Your task to perform on an android device: create a new album in the google photos Image 0: 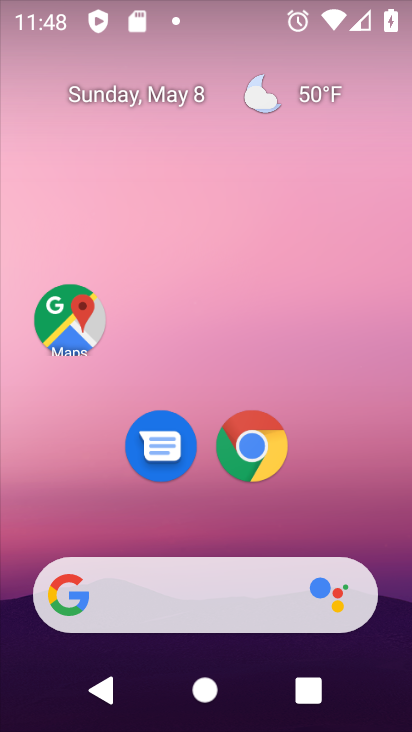
Step 0: drag from (300, 543) to (347, 62)
Your task to perform on an android device: create a new album in the google photos Image 1: 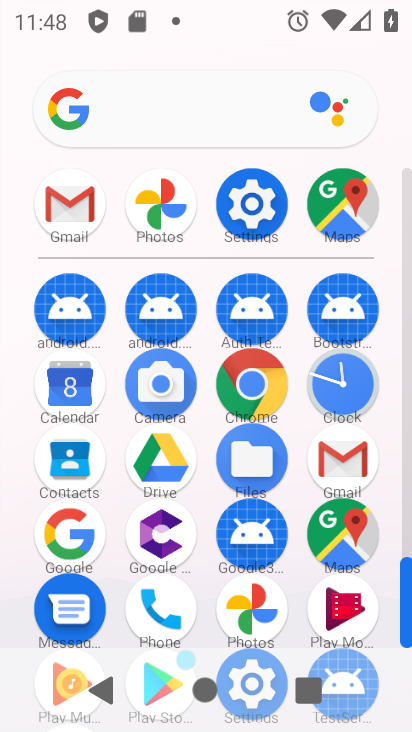
Step 1: click (266, 610)
Your task to perform on an android device: create a new album in the google photos Image 2: 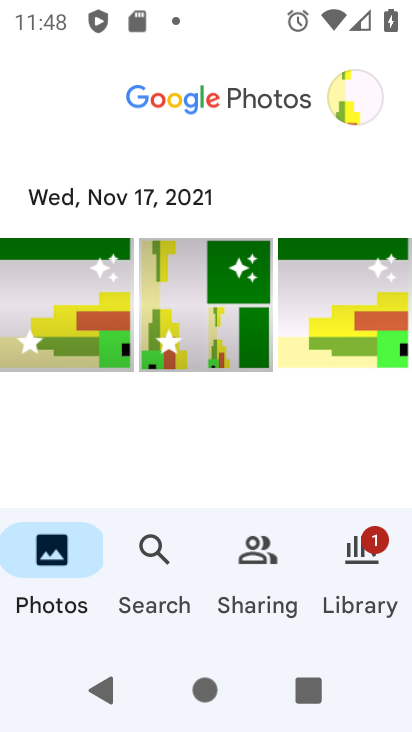
Step 2: click (347, 597)
Your task to perform on an android device: create a new album in the google photos Image 3: 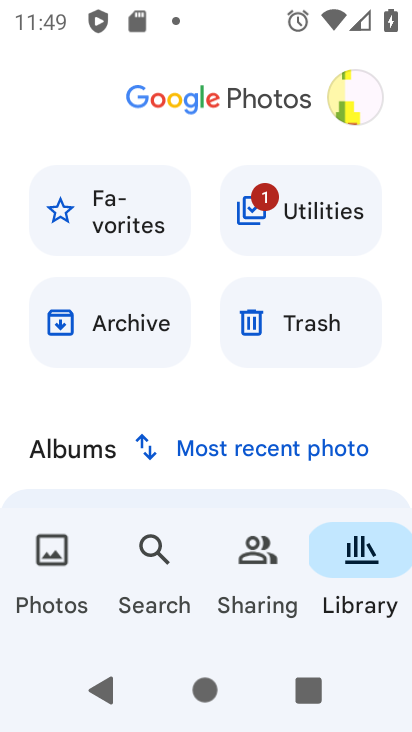
Step 3: drag from (127, 488) to (183, 45)
Your task to perform on an android device: create a new album in the google photos Image 4: 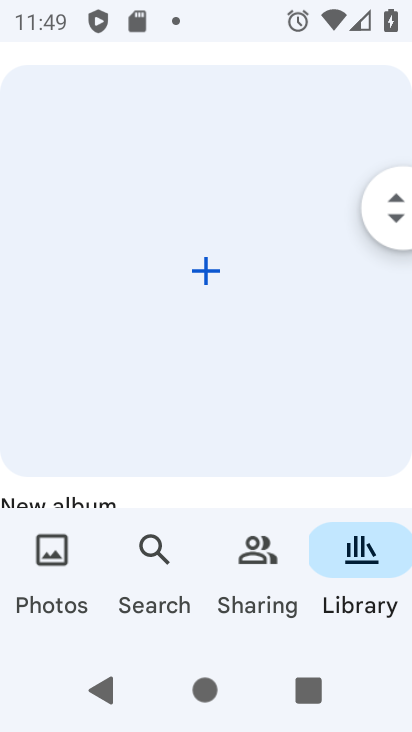
Step 4: click (212, 268)
Your task to perform on an android device: create a new album in the google photos Image 5: 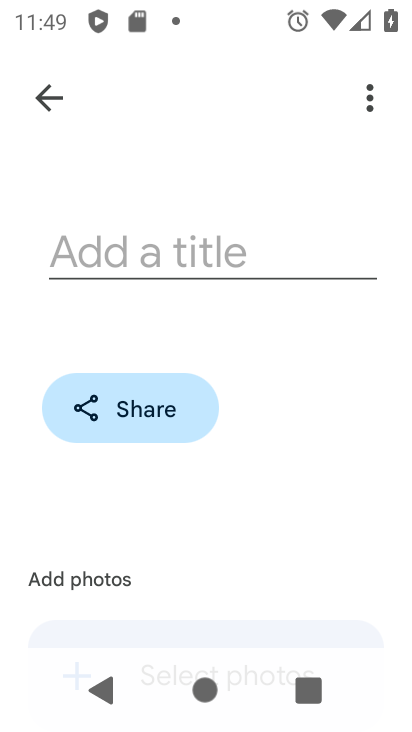
Step 5: click (127, 259)
Your task to perform on an android device: create a new album in the google photos Image 6: 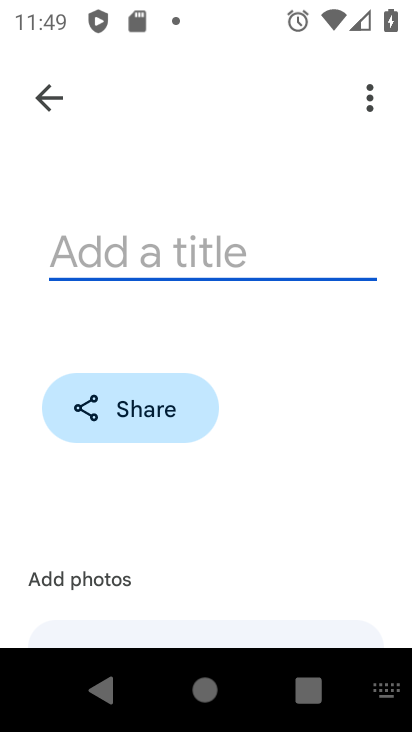
Step 6: type "ghuynmkjoip"
Your task to perform on an android device: create a new album in the google photos Image 7: 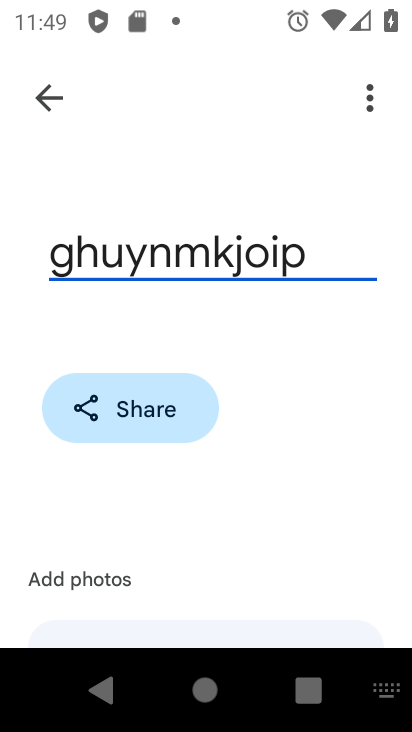
Step 7: drag from (132, 562) to (163, 178)
Your task to perform on an android device: create a new album in the google photos Image 8: 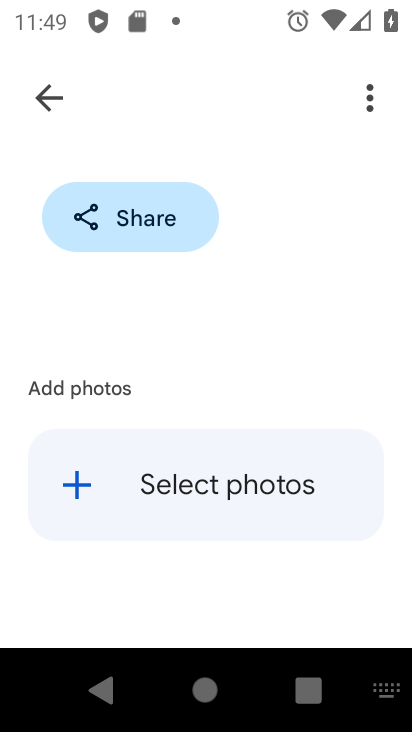
Step 8: click (173, 493)
Your task to perform on an android device: create a new album in the google photos Image 9: 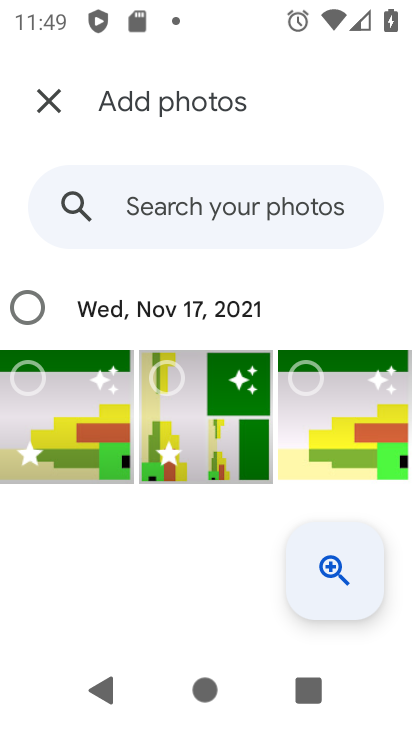
Step 9: click (92, 426)
Your task to perform on an android device: create a new album in the google photos Image 10: 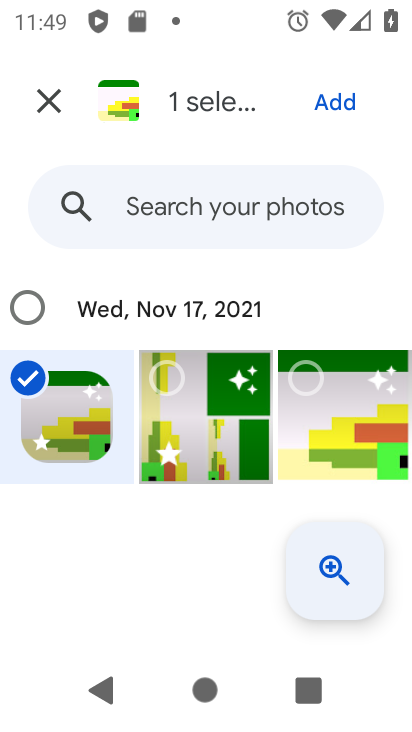
Step 10: click (342, 97)
Your task to perform on an android device: create a new album in the google photos Image 11: 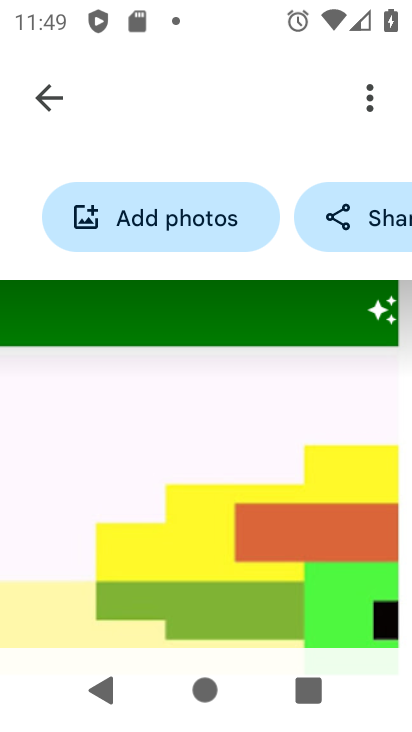
Step 11: task complete